Your task to perform on an android device: all mails in gmail Image 0: 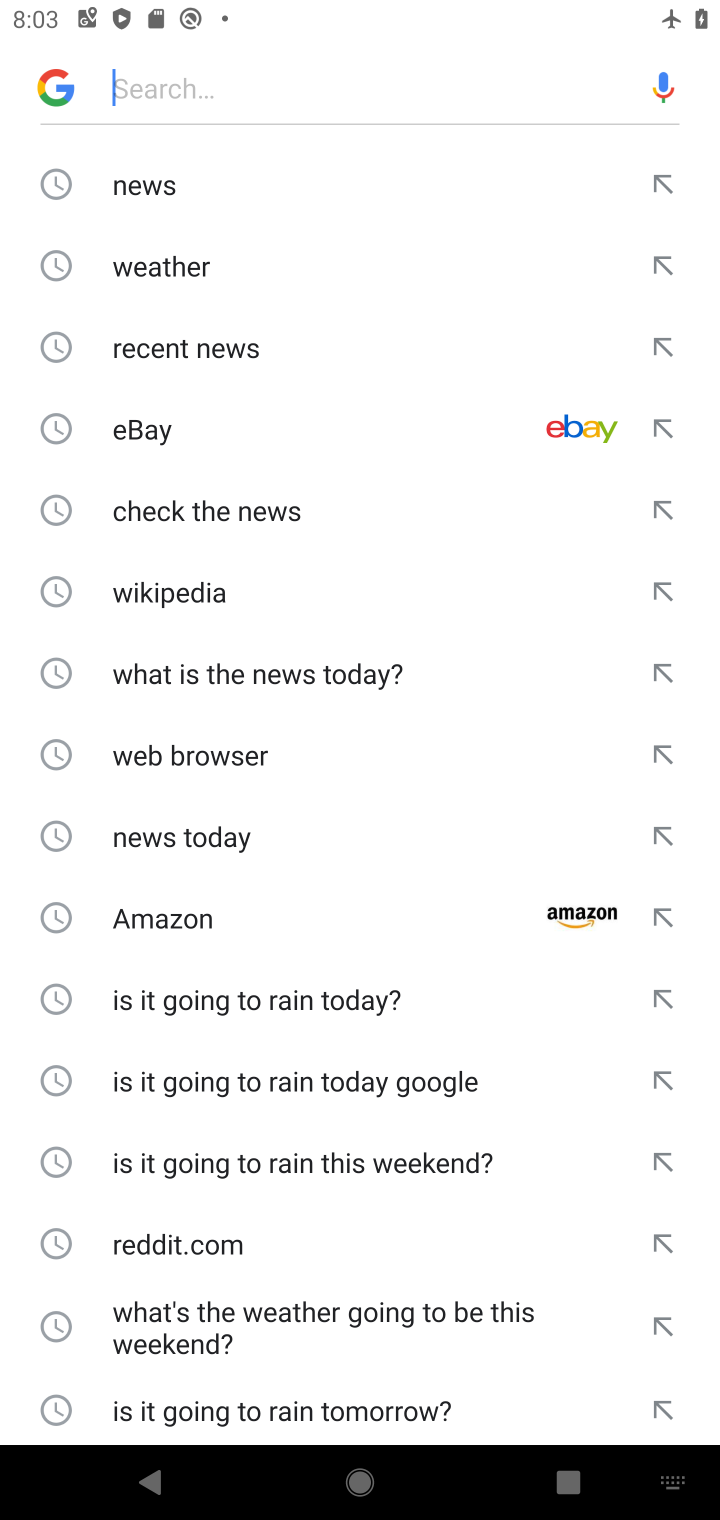
Step 0: press home button
Your task to perform on an android device: all mails in gmail Image 1: 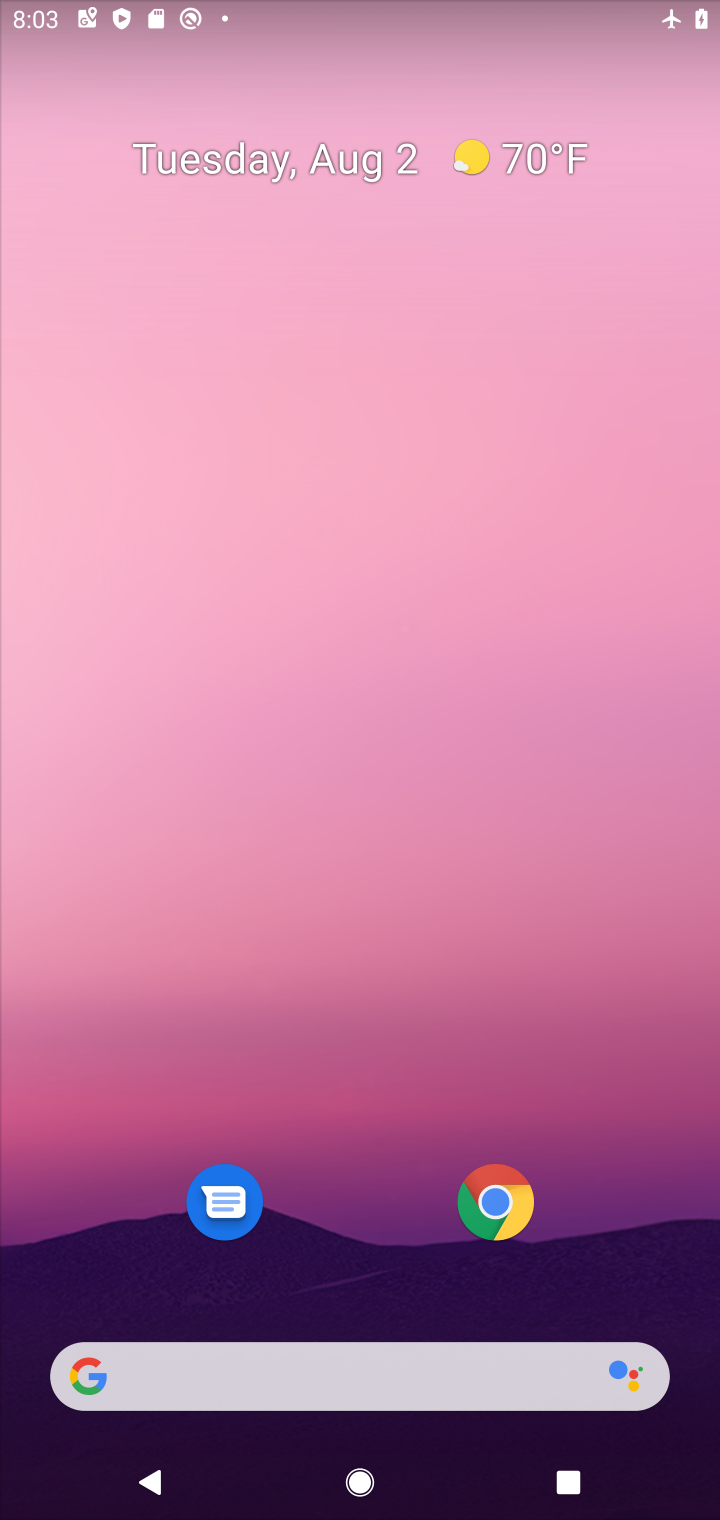
Step 1: drag from (380, 1012) to (415, 122)
Your task to perform on an android device: all mails in gmail Image 2: 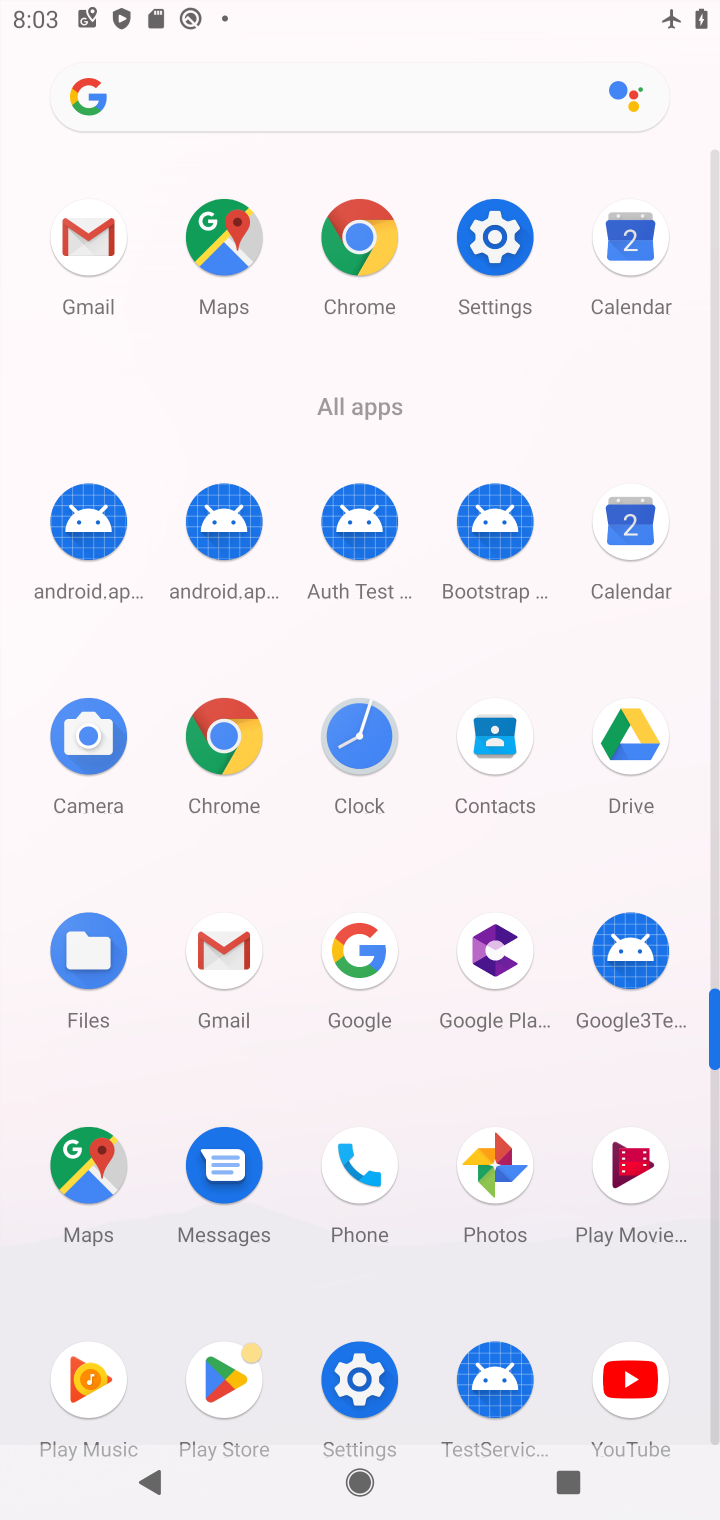
Step 2: click (80, 262)
Your task to perform on an android device: all mails in gmail Image 3: 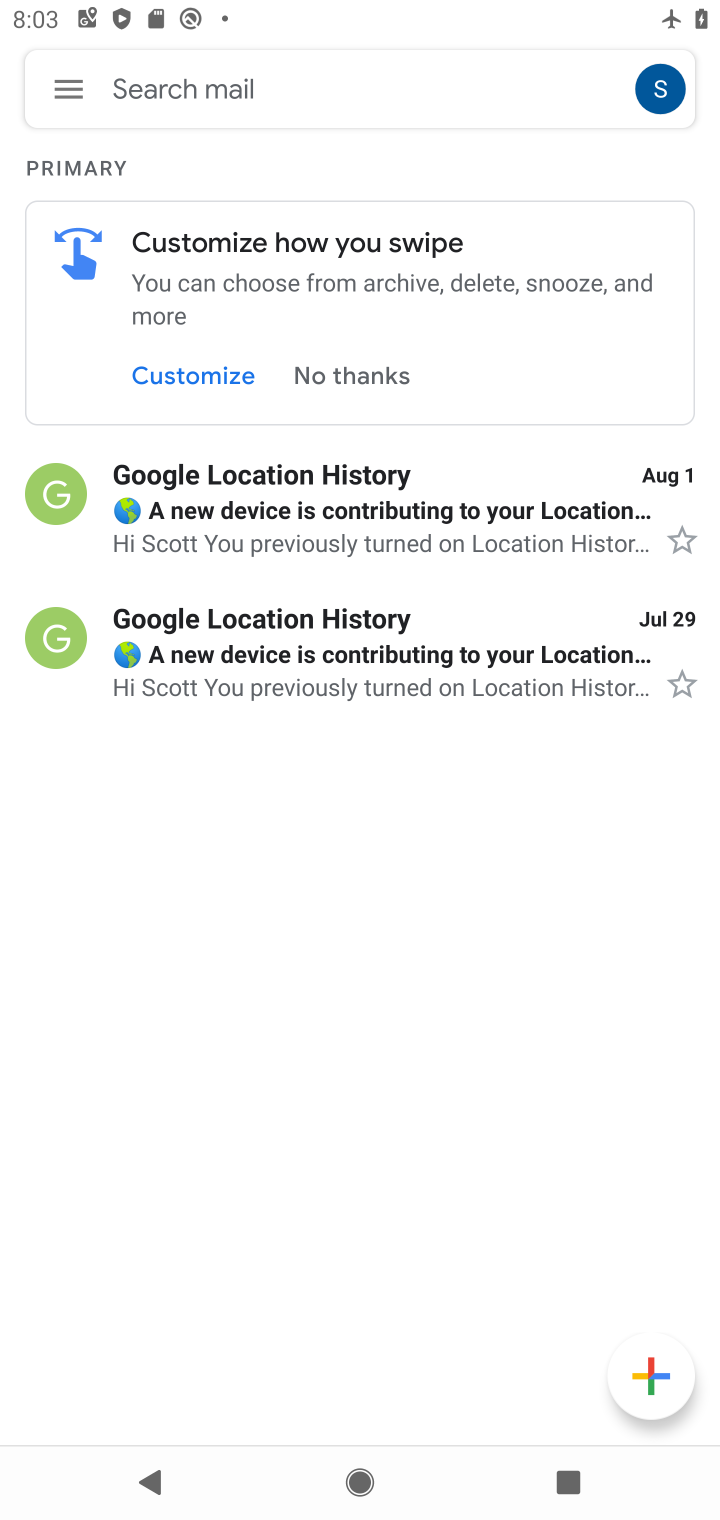
Step 3: click (67, 83)
Your task to perform on an android device: all mails in gmail Image 4: 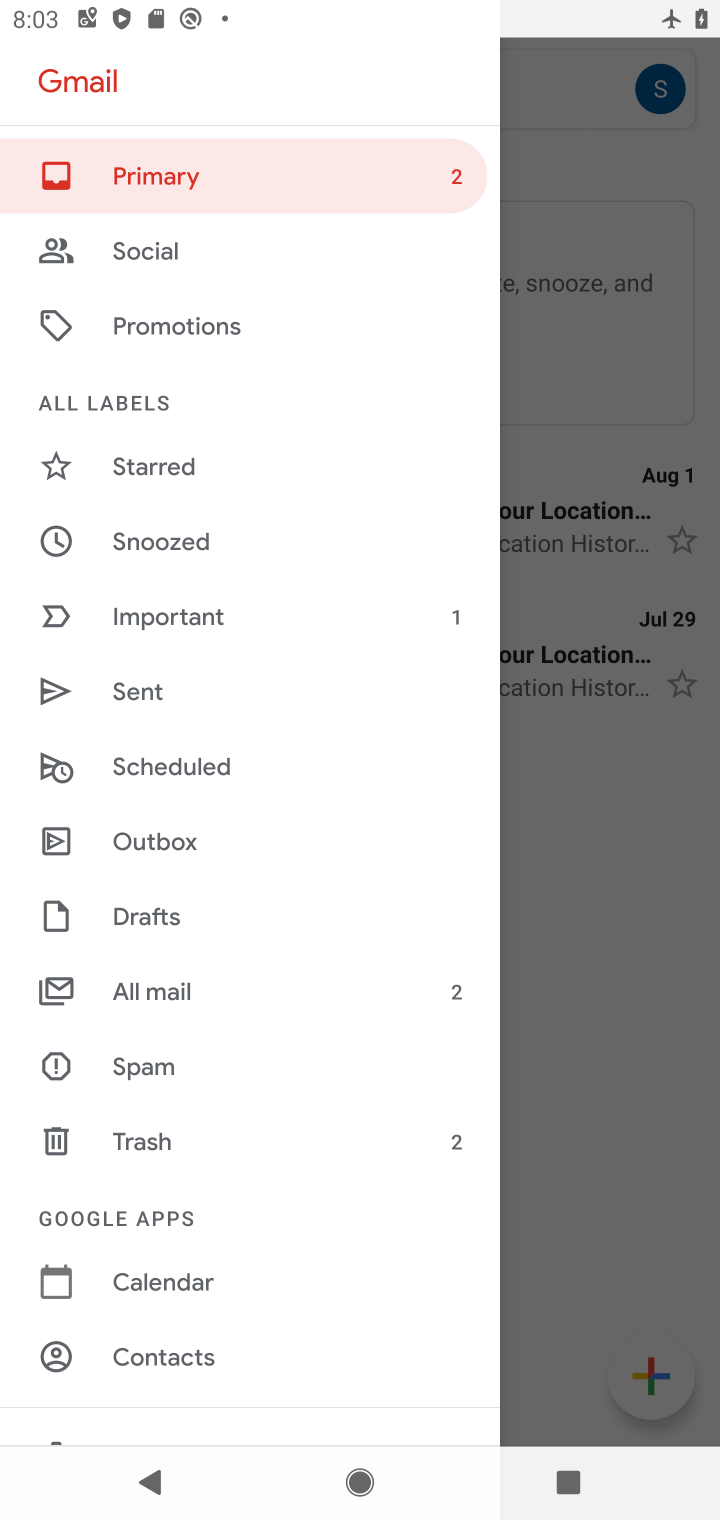
Step 4: click (141, 970)
Your task to perform on an android device: all mails in gmail Image 5: 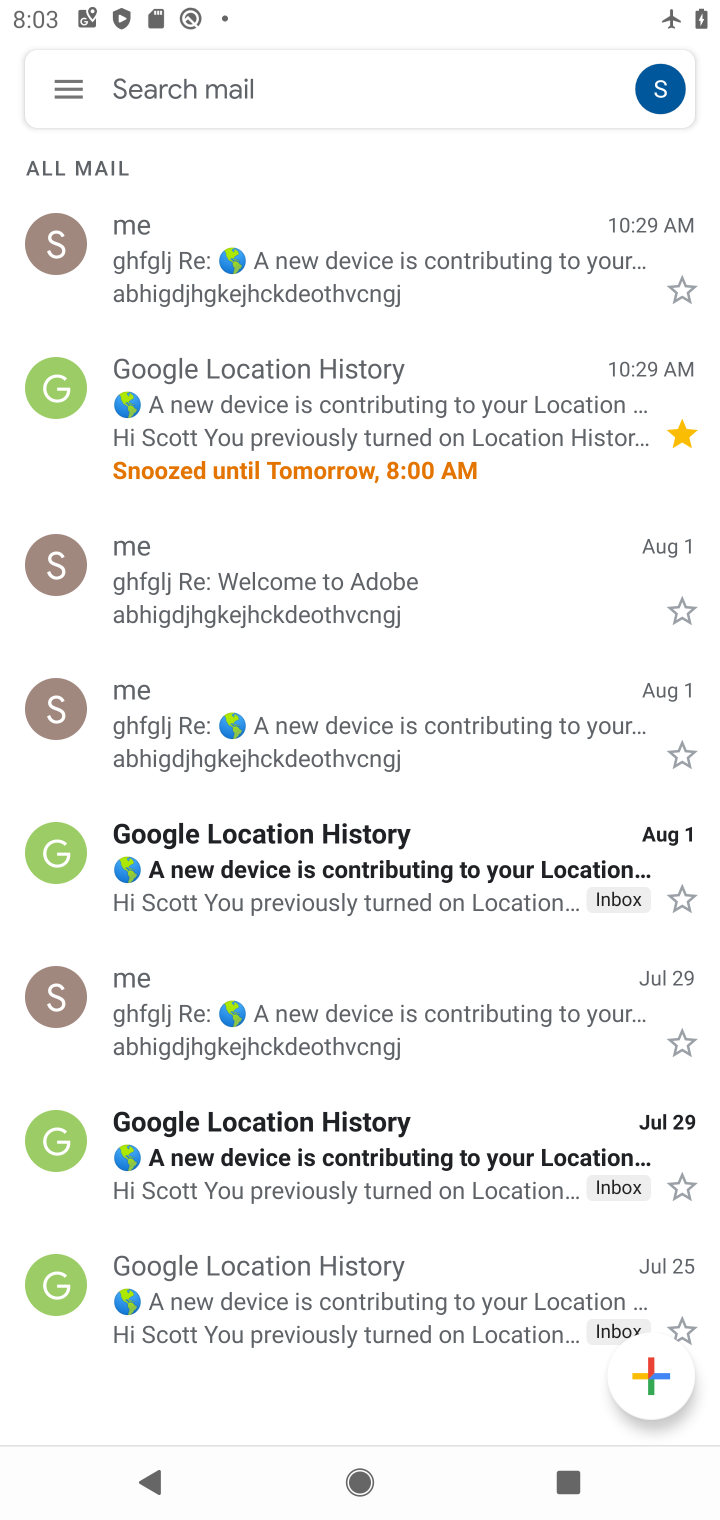
Step 5: task complete